Your task to perform on an android device: turn on the 12-hour format for clock Image 0: 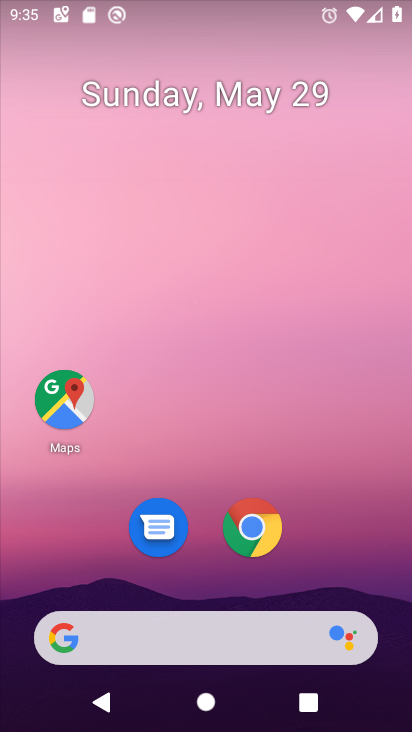
Step 0: press home button
Your task to perform on an android device: turn on the 12-hour format for clock Image 1: 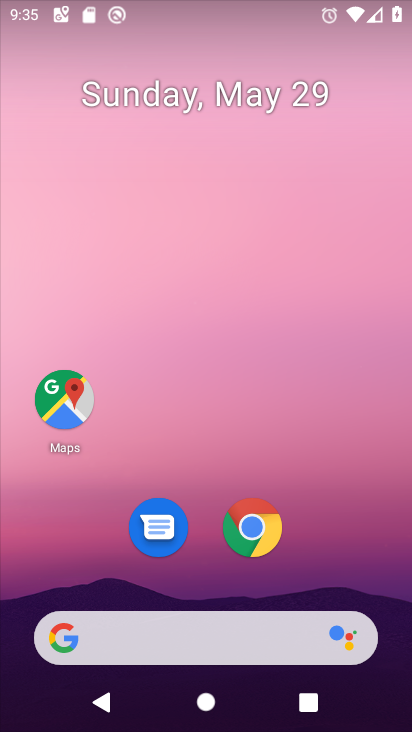
Step 1: drag from (207, 579) to (243, 128)
Your task to perform on an android device: turn on the 12-hour format for clock Image 2: 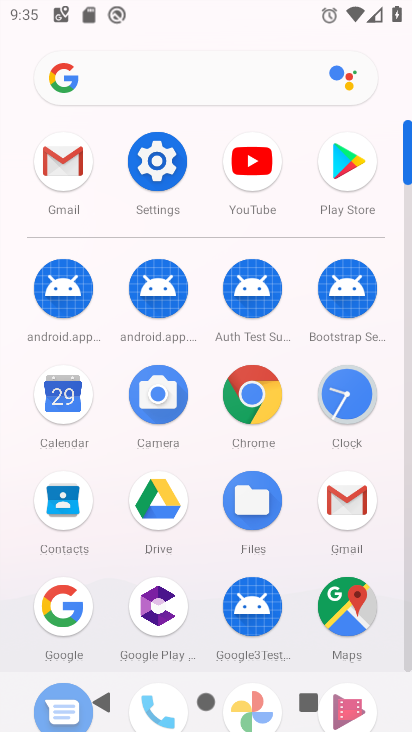
Step 2: click (346, 389)
Your task to perform on an android device: turn on the 12-hour format for clock Image 3: 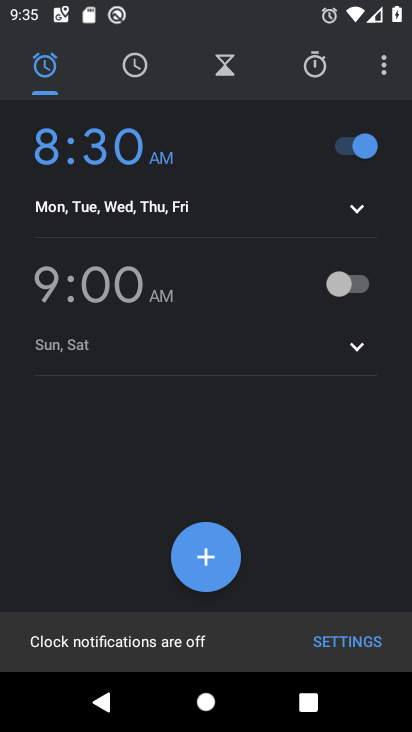
Step 3: click (381, 62)
Your task to perform on an android device: turn on the 12-hour format for clock Image 4: 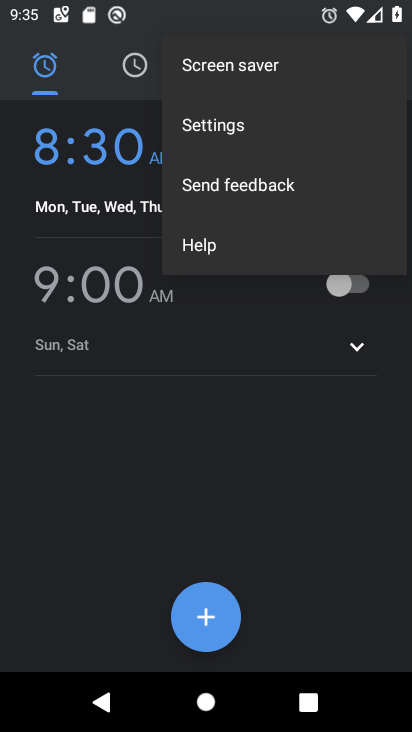
Step 4: click (259, 121)
Your task to perform on an android device: turn on the 12-hour format for clock Image 5: 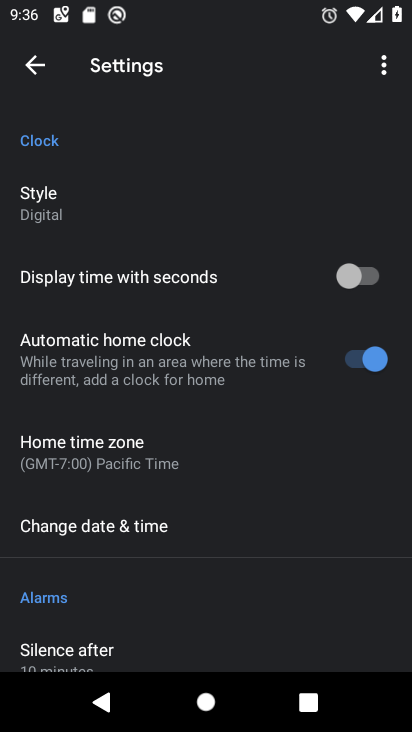
Step 5: click (186, 524)
Your task to perform on an android device: turn on the 12-hour format for clock Image 6: 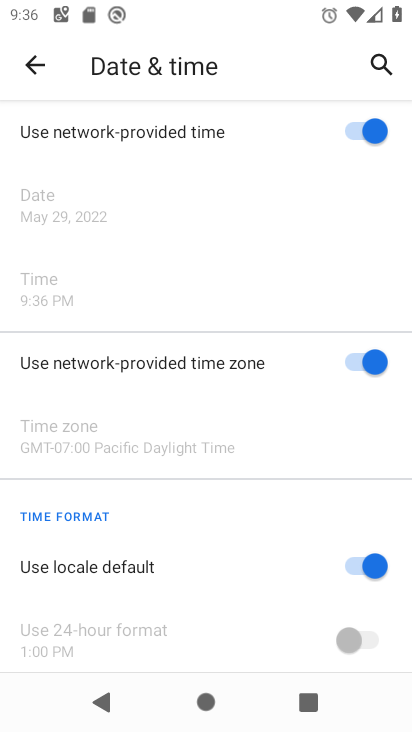
Step 6: click (247, 375)
Your task to perform on an android device: turn on the 12-hour format for clock Image 7: 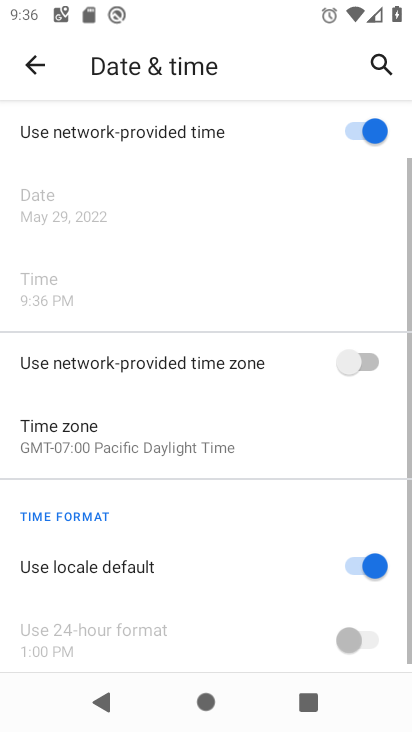
Step 7: task complete